Your task to perform on an android device: manage bookmarks in the chrome app Image 0: 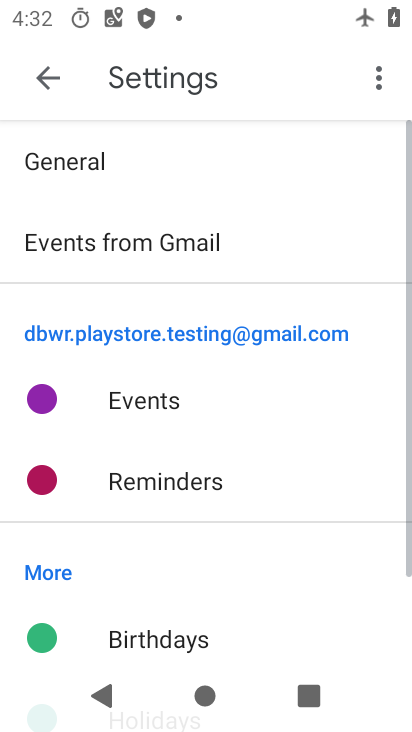
Step 0: drag from (176, 578) to (214, 183)
Your task to perform on an android device: manage bookmarks in the chrome app Image 1: 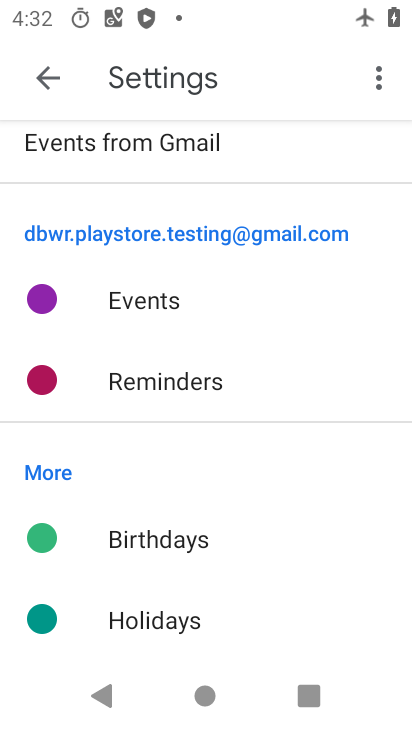
Step 1: press home button
Your task to perform on an android device: manage bookmarks in the chrome app Image 2: 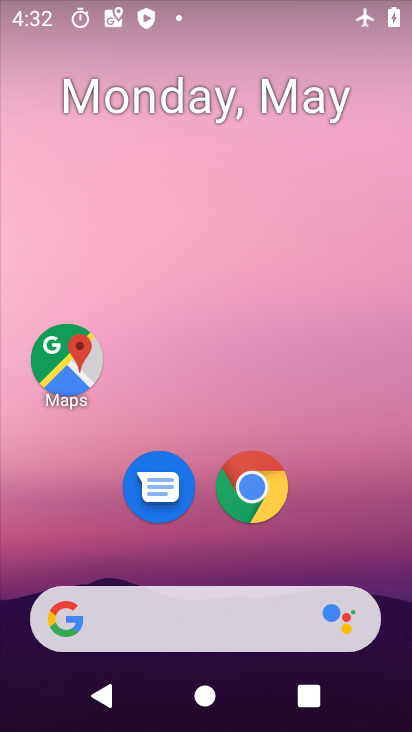
Step 2: click (251, 486)
Your task to perform on an android device: manage bookmarks in the chrome app Image 3: 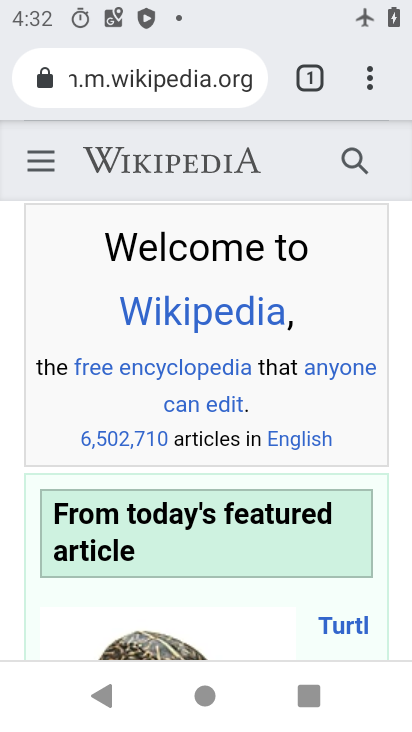
Step 3: click (373, 70)
Your task to perform on an android device: manage bookmarks in the chrome app Image 4: 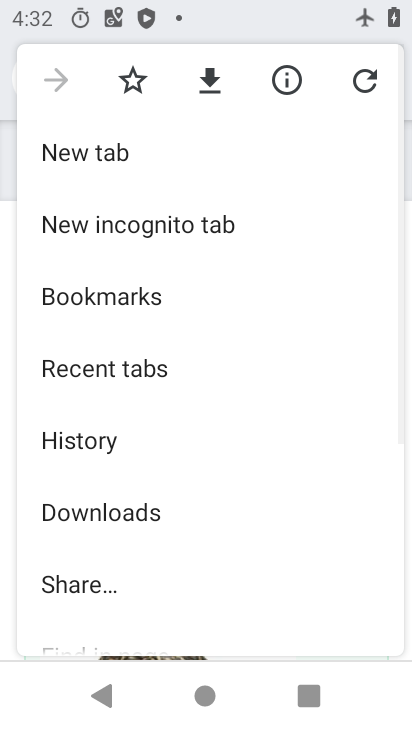
Step 4: click (99, 312)
Your task to perform on an android device: manage bookmarks in the chrome app Image 5: 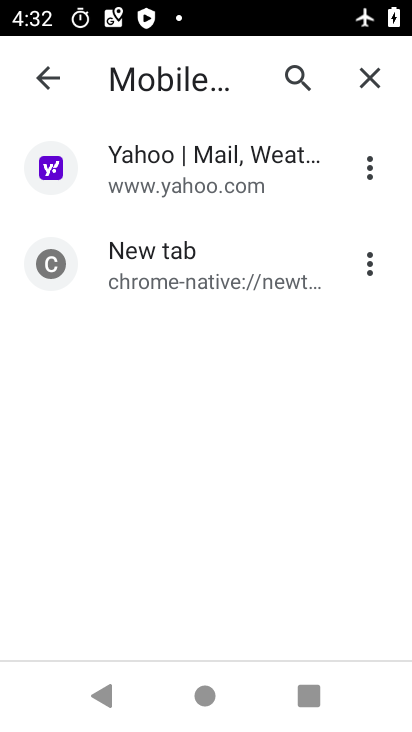
Step 5: task complete